Your task to perform on an android device: turn notification dots off Image 0: 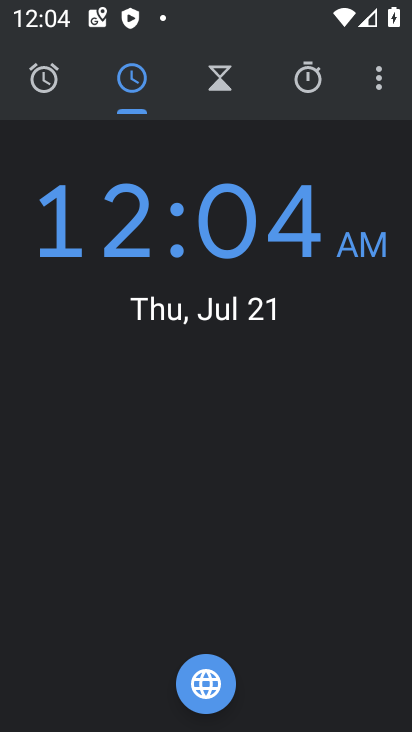
Step 0: press back button
Your task to perform on an android device: turn notification dots off Image 1: 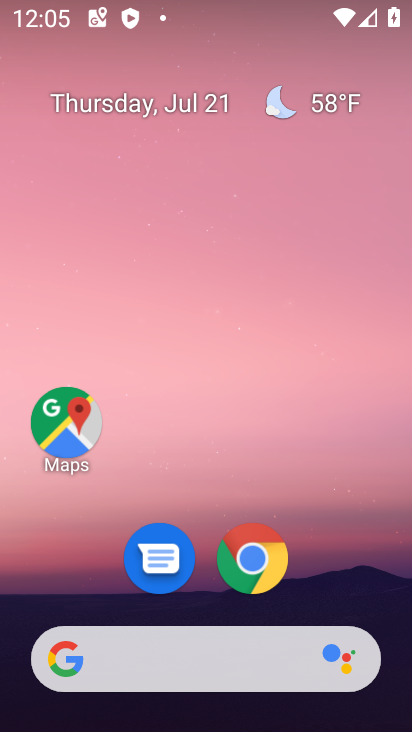
Step 1: drag from (68, 514) to (185, 35)
Your task to perform on an android device: turn notification dots off Image 2: 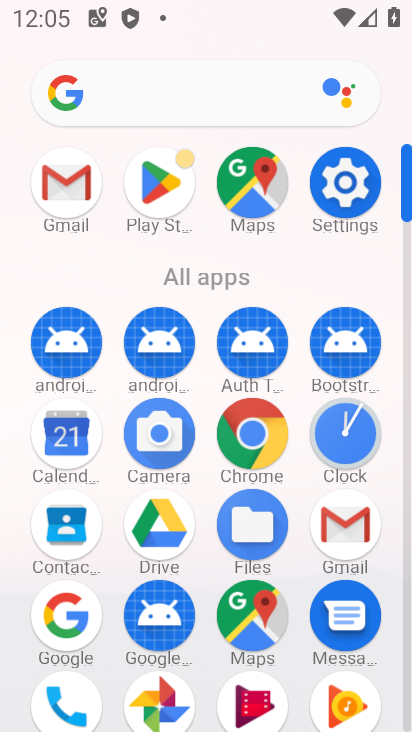
Step 2: click (333, 188)
Your task to perform on an android device: turn notification dots off Image 3: 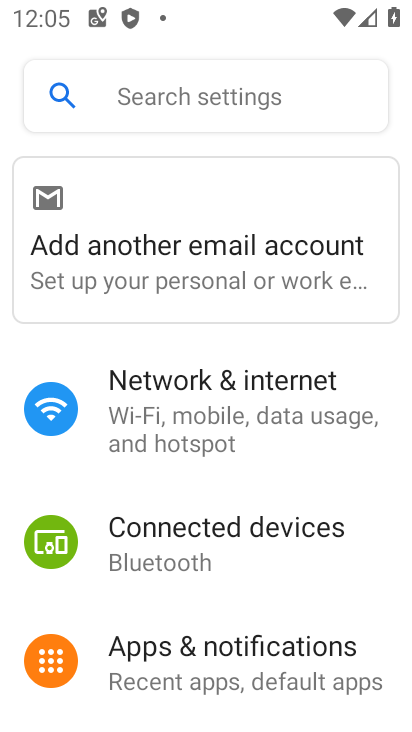
Step 3: click (247, 654)
Your task to perform on an android device: turn notification dots off Image 4: 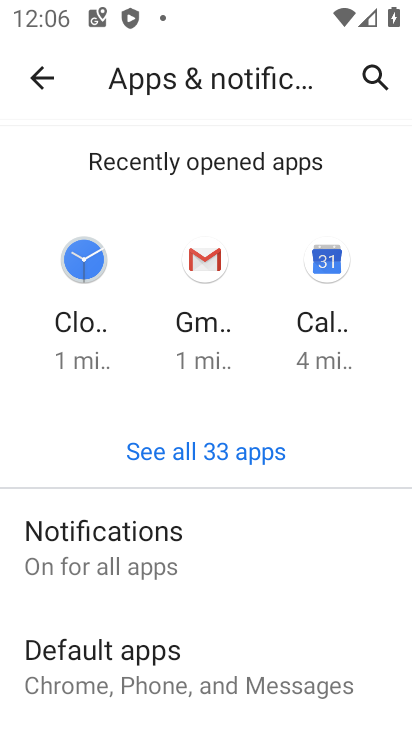
Step 4: click (178, 544)
Your task to perform on an android device: turn notification dots off Image 5: 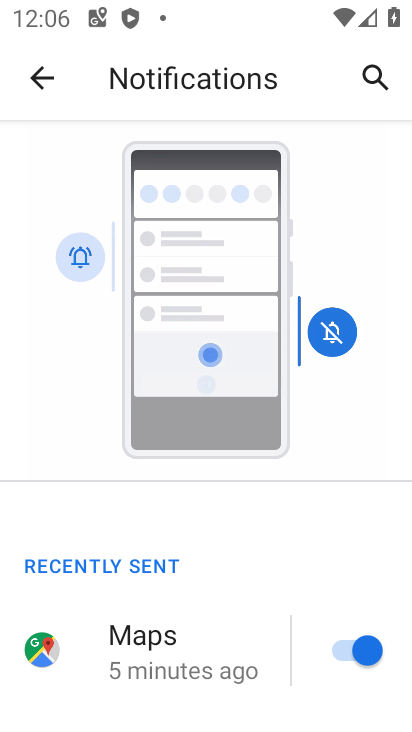
Step 5: drag from (131, 657) to (208, 186)
Your task to perform on an android device: turn notification dots off Image 6: 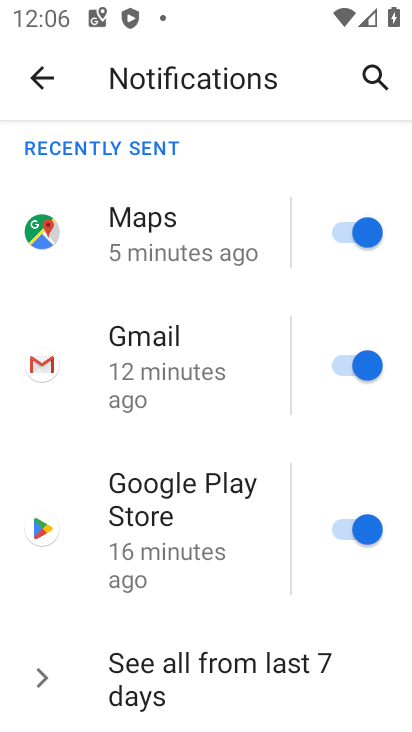
Step 6: drag from (166, 620) to (270, 108)
Your task to perform on an android device: turn notification dots off Image 7: 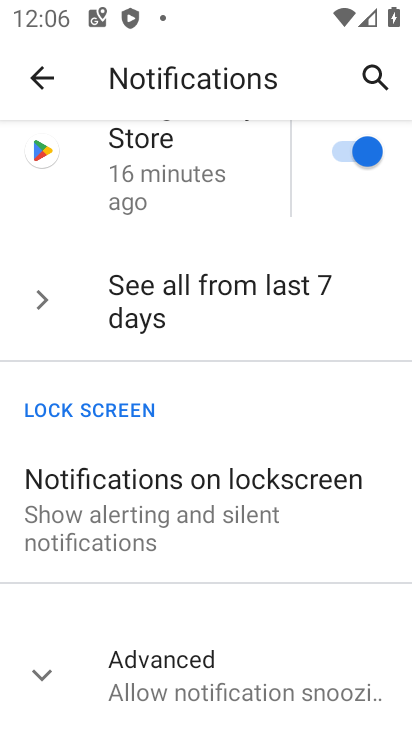
Step 7: click (186, 653)
Your task to perform on an android device: turn notification dots off Image 8: 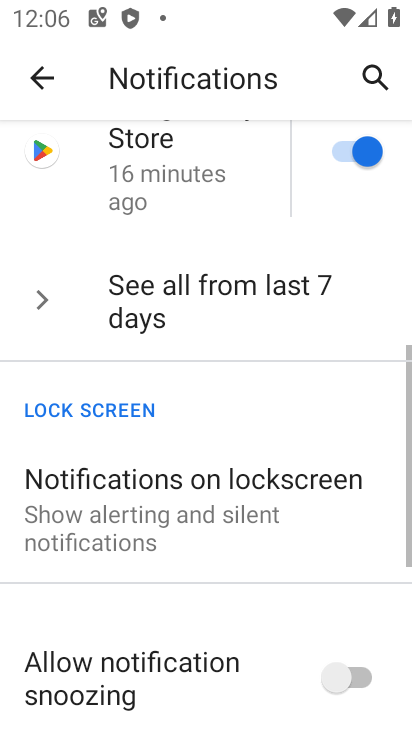
Step 8: drag from (197, 646) to (285, 153)
Your task to perform on an android device: turn notification dots off Image 9: 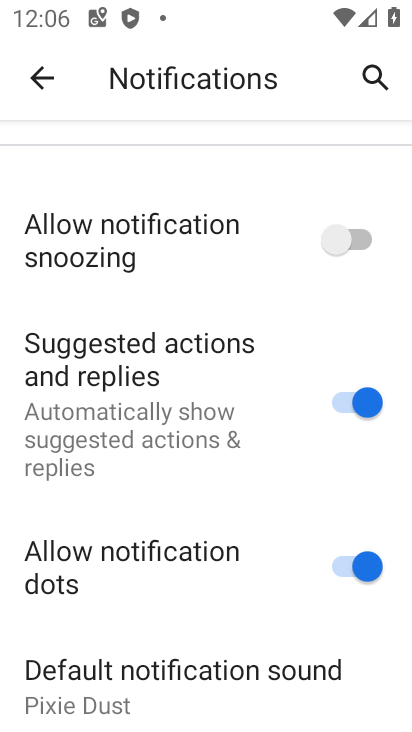
Step 9: click (362, 569)
Your task to perform on an android device: turn notification dots off Image 10: 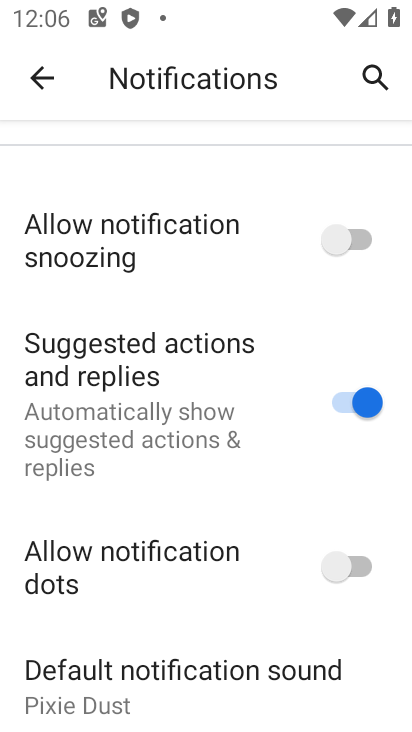
Step 10: task complete